Your task to perform on an android device: turn off sleep mode Image 0: 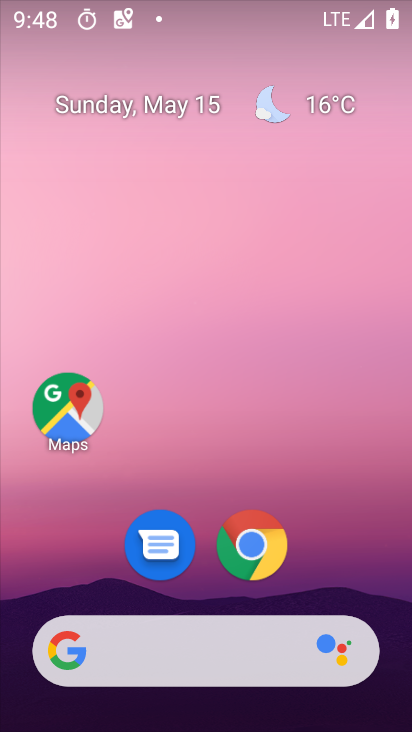
Step 0: drag from (327, 567) to (242, 197)
Your task to perform on an android device: turn off sleep mode Image 1: 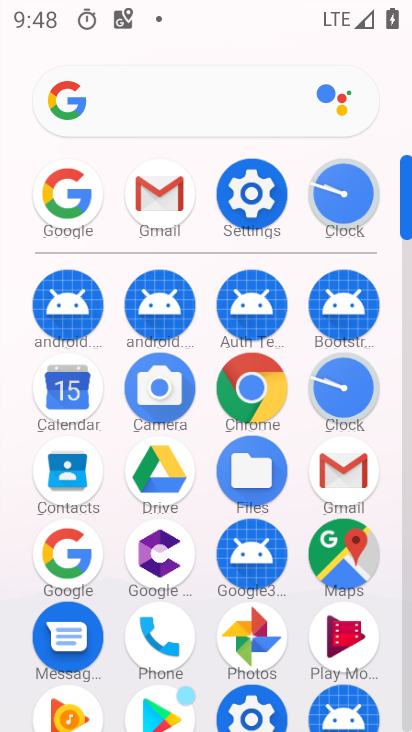
Step 1: click (251, 195)
Your task to perform on an android device: turn off sleep mode Image 2: 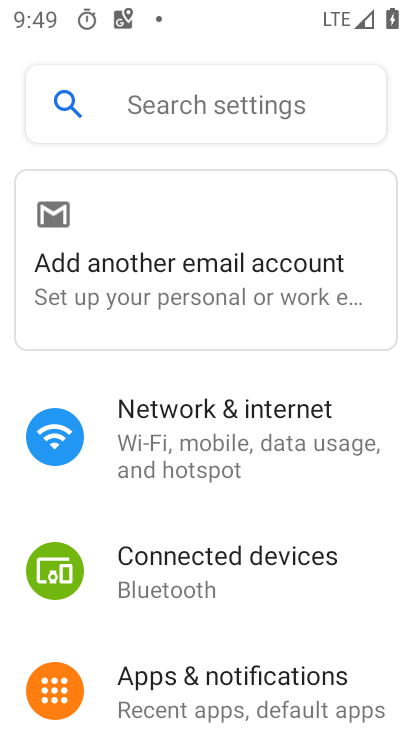
Step 2: drag from (242, 605) to (277, 492)
Your task to perform on an android device: turn off sleep mode Image 3: 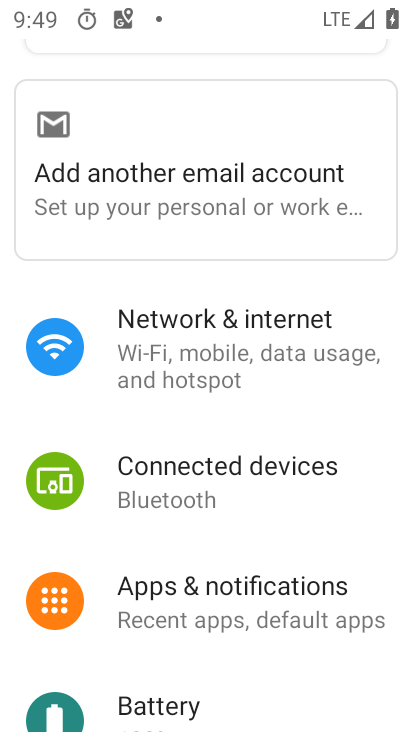
Step 3: drag from (215, 666) to (269, 522)
Your task to perform on an android device: turn off sleep mode Image 4: 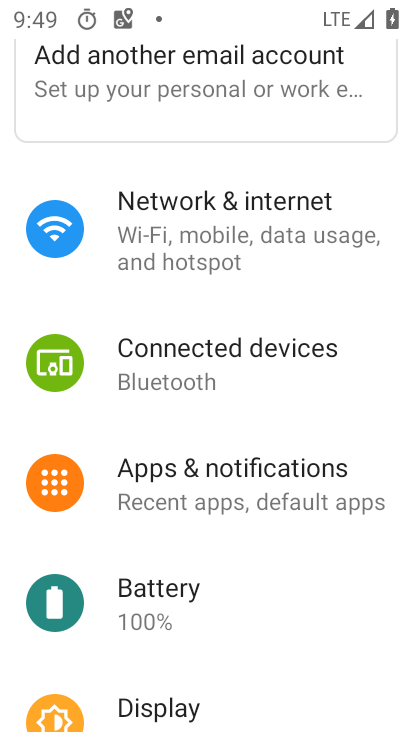
Step 4: drag from (224, 592) to (274, 475)
Your task to perform on an android device: turn off sleep mode Image 5: 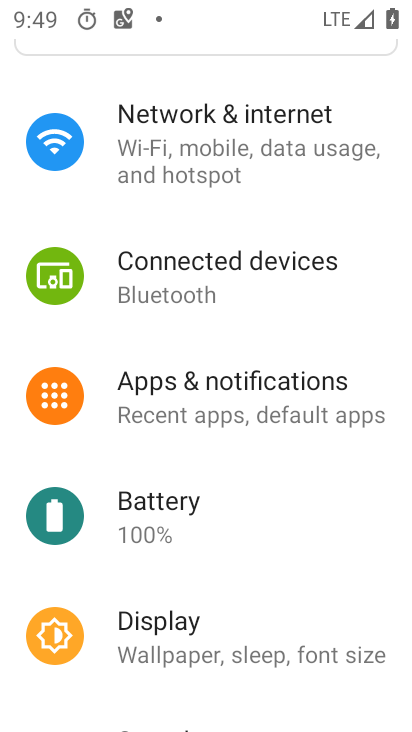
Step 5: click (228, 640)
Your task to perform on an android device: turn off sleep mode Image 6: 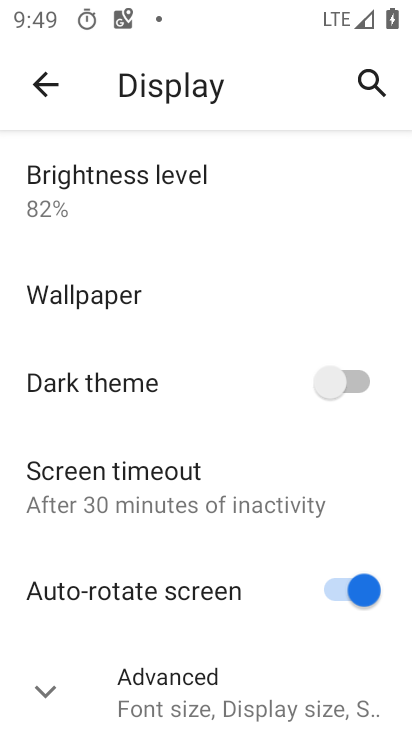
Step 6: drag from (201, 553) to (232, 429)
Your task to perform on an android device: turn off sleep mode Image 7: 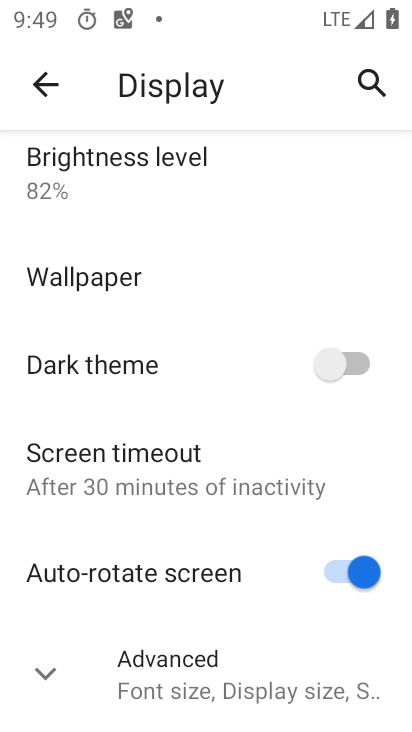
Step 7: click (174, 689)
Your task to perform on an android device: turn off sleep mode Image 8: 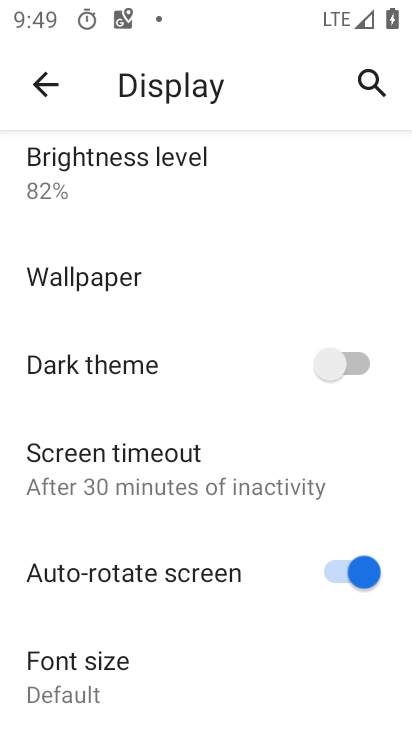
Step 8: drag from (131, 551) to (176, 408)
Your task to perform on an android device: turn off sleep mode Image 9: 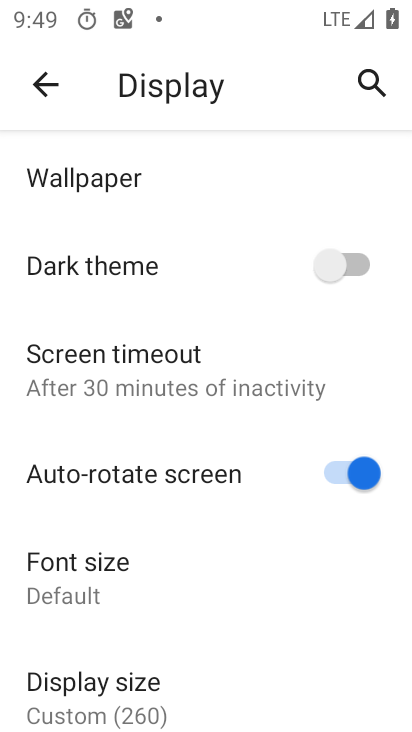
Step 9: click (195, 378)
Your task to perform on an android device: turn off sleep mode Image 10: 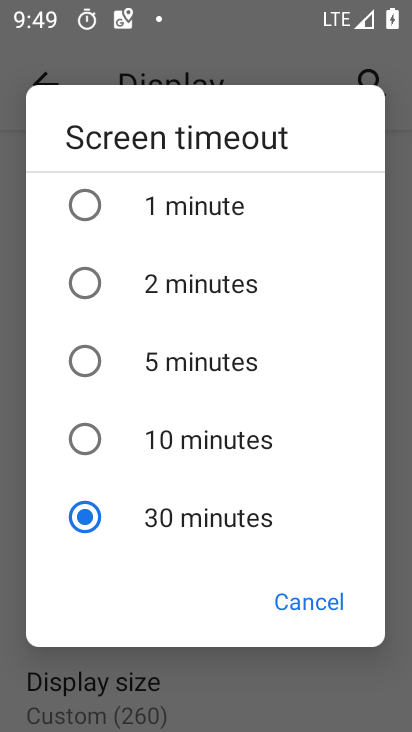
Step 10: click (93, 434)
Your task to perform on an android device: turn off sleep mode Image 11: 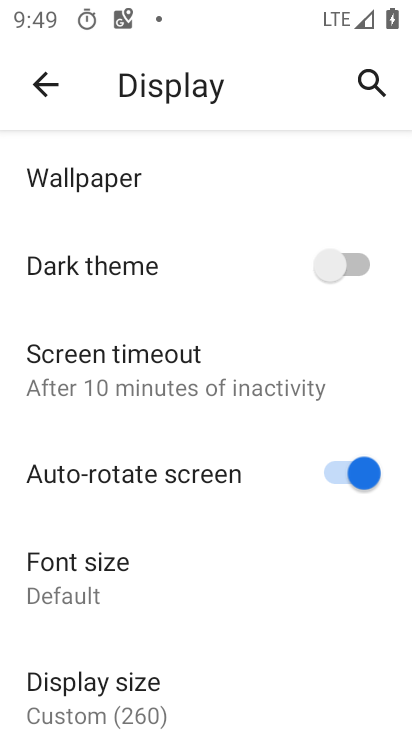
Step 11: task complete